Your task to perform on an android device: see creations saved in the google photos Image 0: 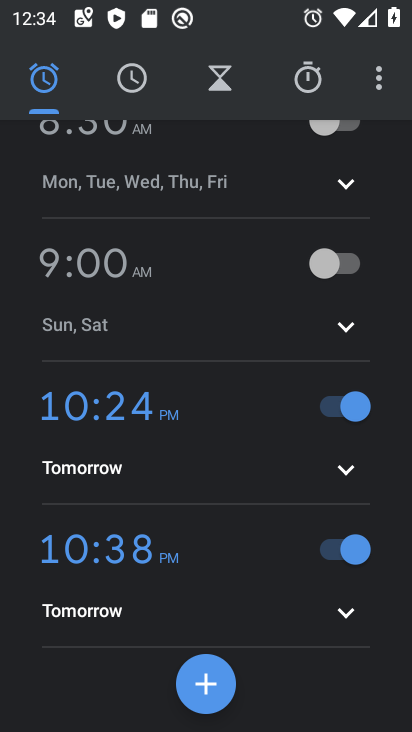
Step 0: press home button
Your task to perform on an android device: see creations saved in the google photos Image 1: 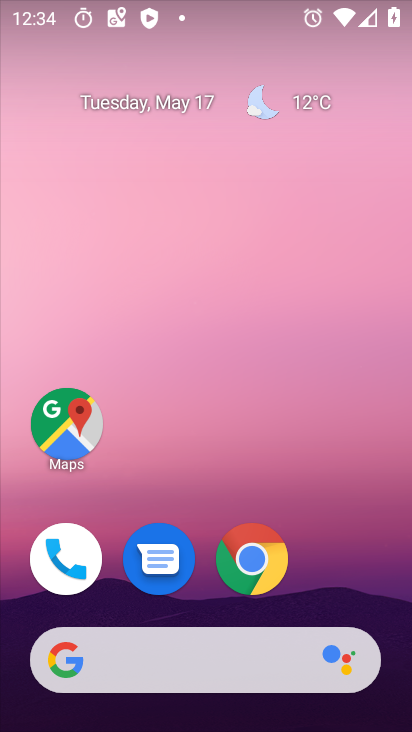
Step 1: drag from (346, 541) to (324, 164)
Your task to perform on an android device: see creations saved in the google photos Image 2: 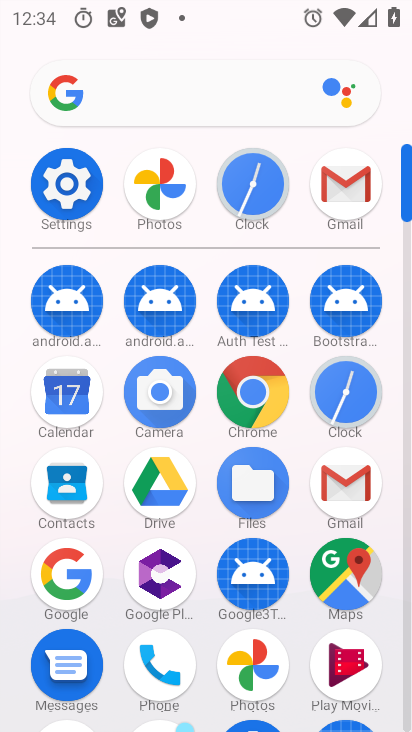
Step 2: click (260, 655)
Your task to perform on an android device: see creations saved in the google photos Image 3: 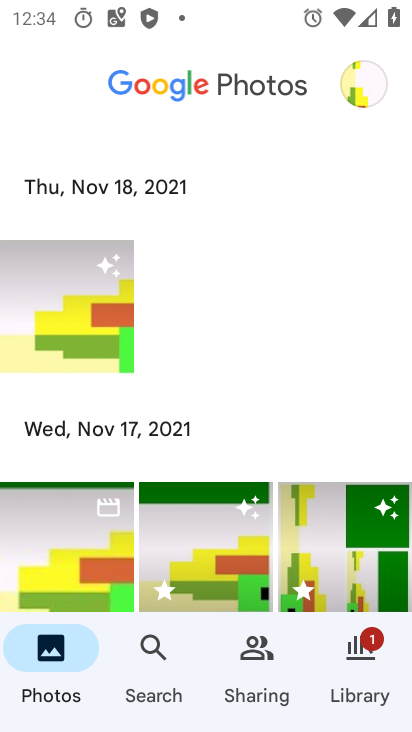
Step 3: click (370, 648)
Your task to perform on an android device: see creations saved in the google photos Image 4: 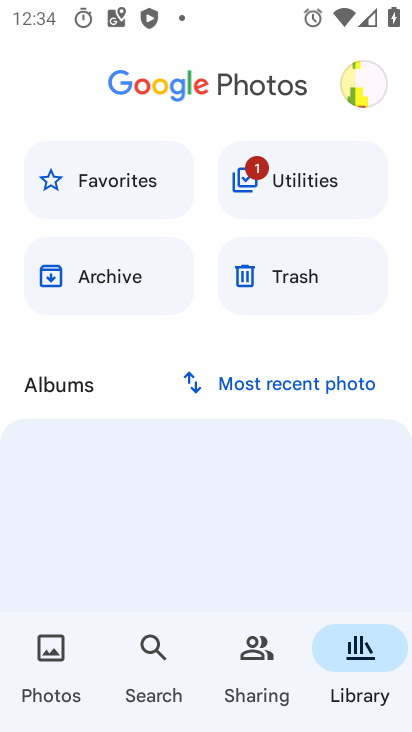
Step 4: click (295, 177)
Your task to perform on an android device: see creations saved in the google photos Image 5: 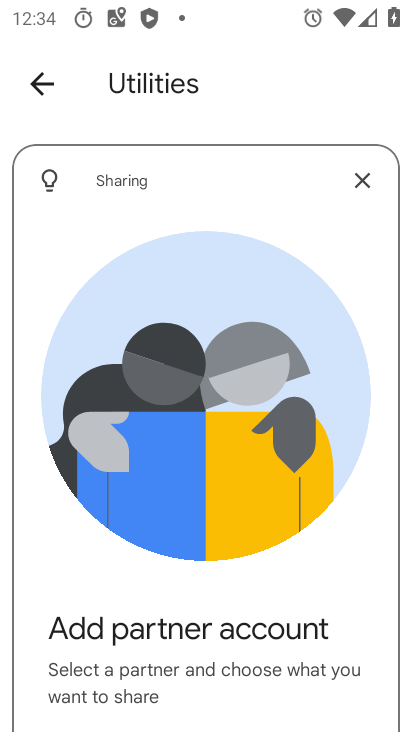
Step 5: click (50, 80)
Your task to perform on an android device: see creations saved in the google photos Image 6: 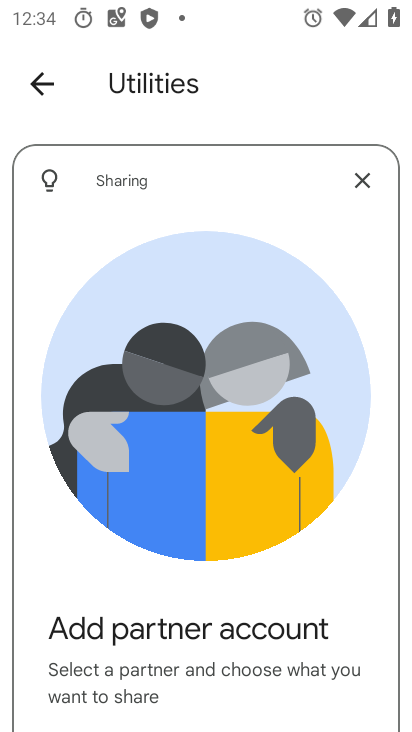
Step 6: task complete